Your task to perform on an android device: Search for pizza restaurants on Maps Image 0: 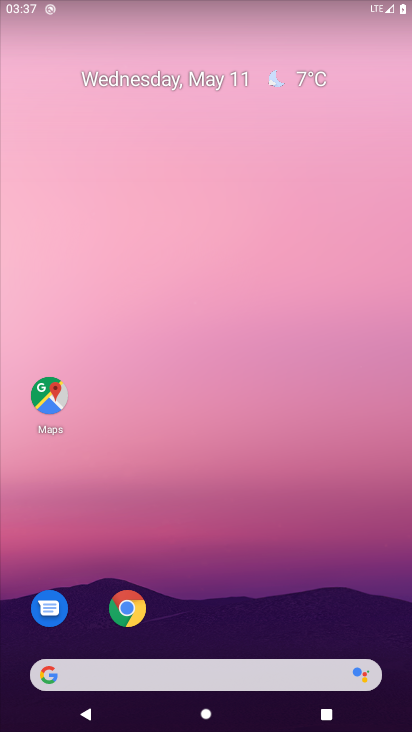
Step 0: drag from (224, 532) to (242, 30)
Your task to perform on an android device: Search for pizza restaurants on Maps Image 1: 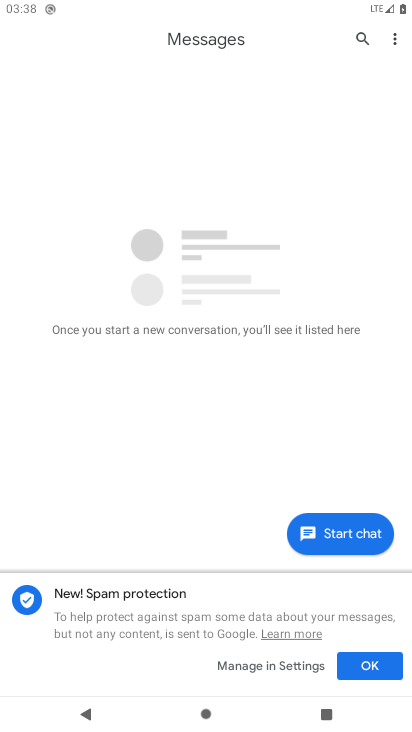
Step 1: press home button
Your task to perform on an android device: Search for pizza restaurants on Maps Image 2: 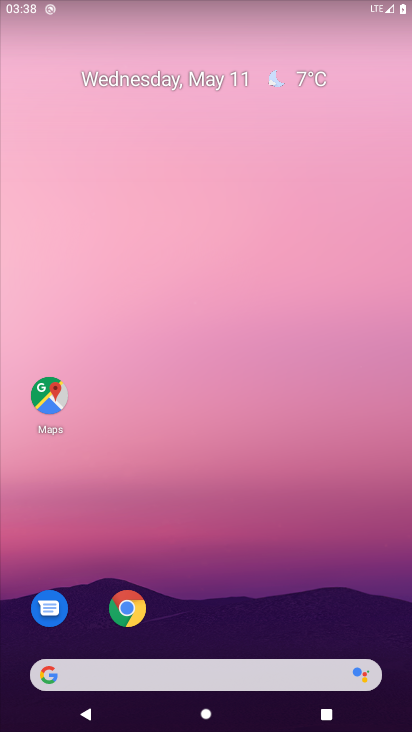
Step 2: click (51, 397)
Your task to perform on an android device: Search for pizza restaurants on Maps Image 3: 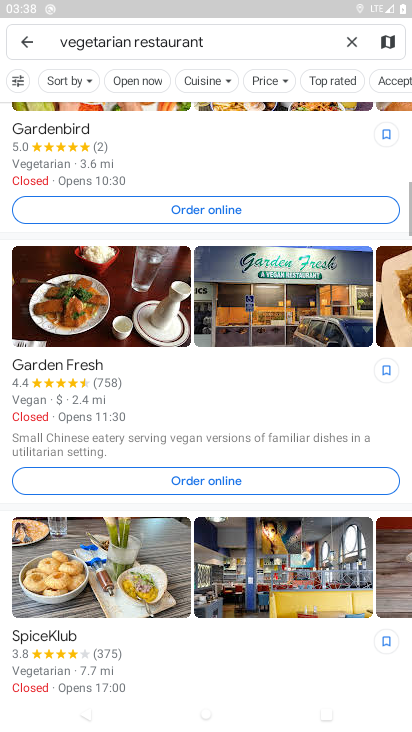
Step 3: click (349, 44)
Your task to perform on an android device: Search for pizza restaurants on Maps Image 4: 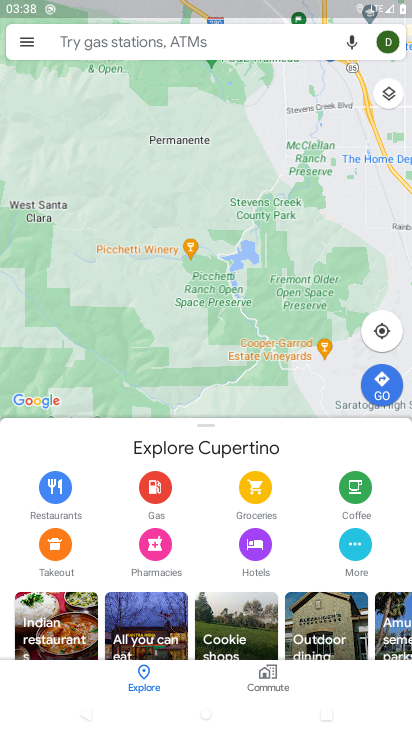
Step 4: click (99, 44)
Your task to perform on an android device: Search for pizza restaurants on Maps Image 5: 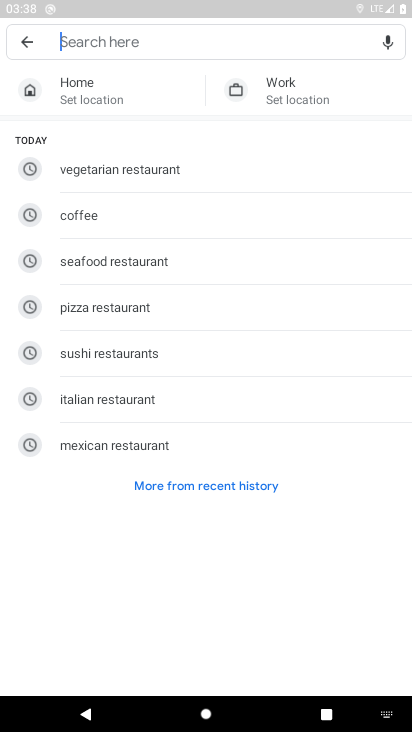
Step 5: click (86, 304)
Your task to perform on an android device: Search for pizza restaurants on Maps Image 6: 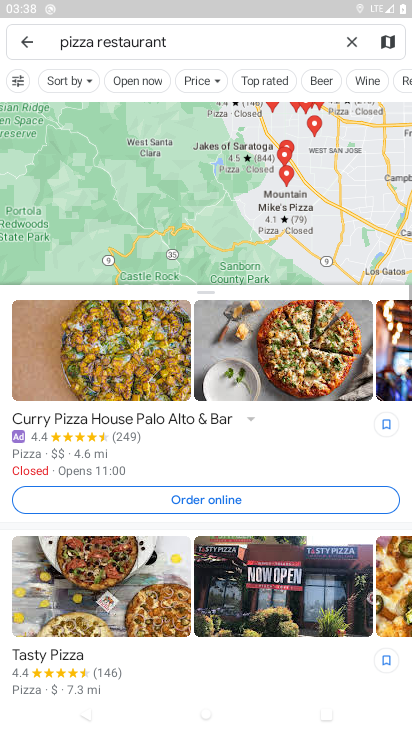
Step 6: task complete